Your task to perform on an android device: check data usage Image 0: 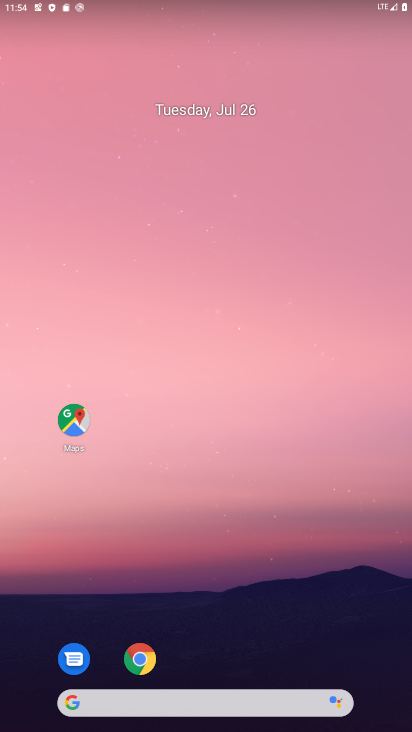
Step 0: drag from (259, 530) to (252, 7)
Your task to perform on an android device: check data usage Image 1: 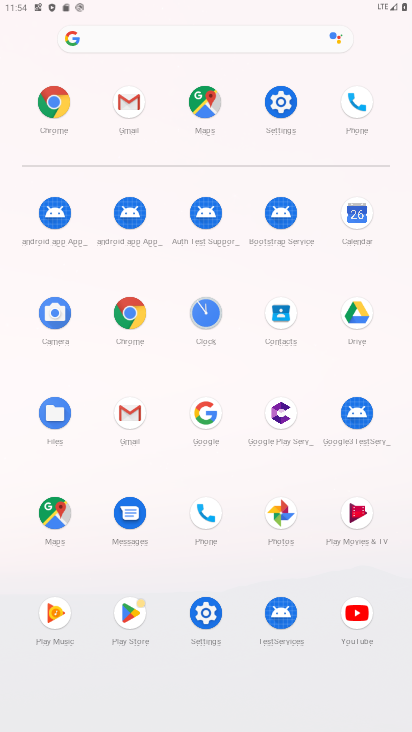
Step 1: click (217, 609)
Your task to perform on an android device: check data usage Image 2: 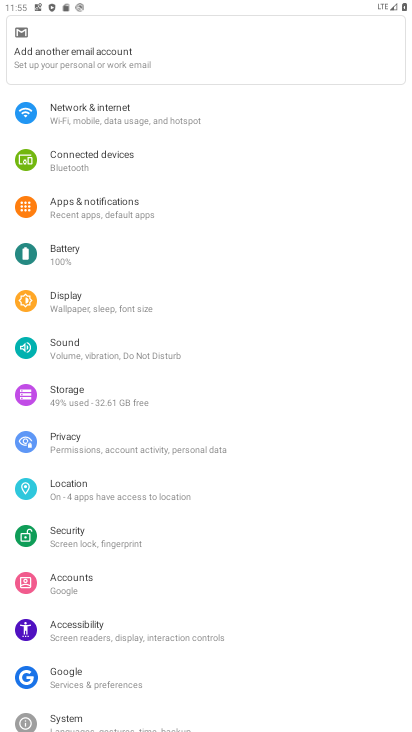
Step 2: click (115, 406)
Your task to perform on an android device: check data usage Image 3: 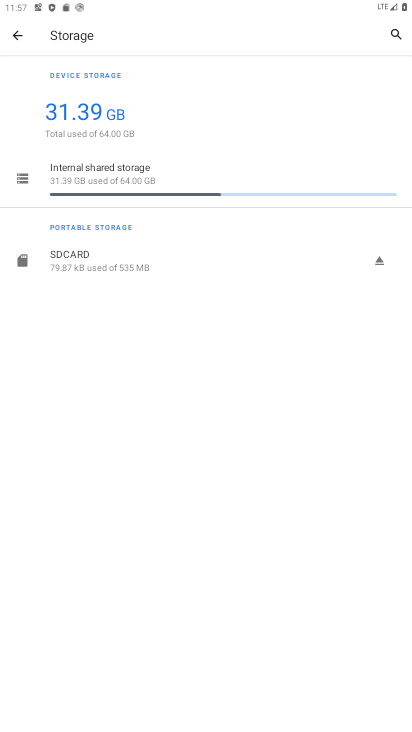
Step 3: task complete